Your task to perform on an android device: create a new album in the google photos Image 0: 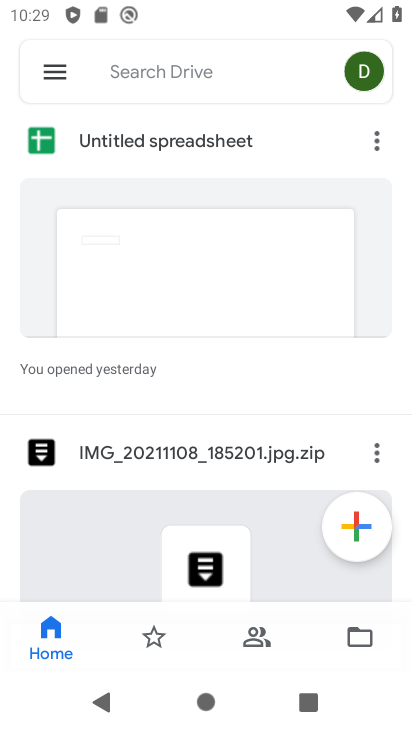
Step 0: click (75, 392)
Your task to perform on an android device: create a new album in the google photos Image 1: 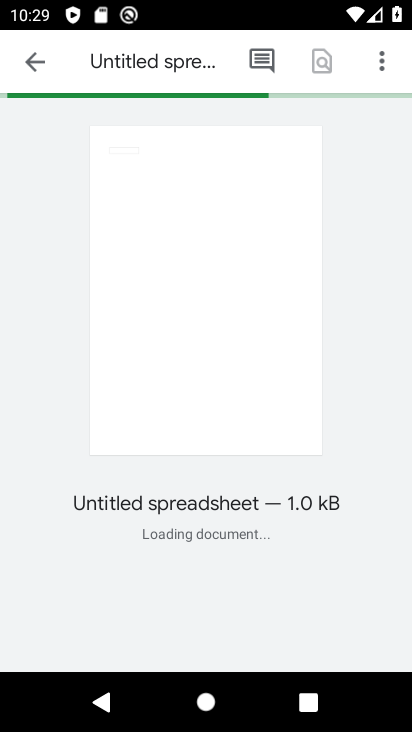
Step 1: press home button
Your task to perform on an android device: create a new album in the google photos Image 2: 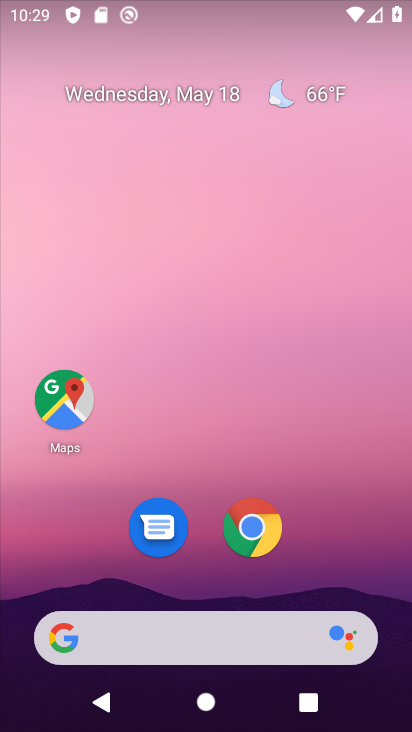
Step 2: drag from (370, 584) to (342, 204)
Your task to perform on an android device: create a new album in the google photos Image 3: 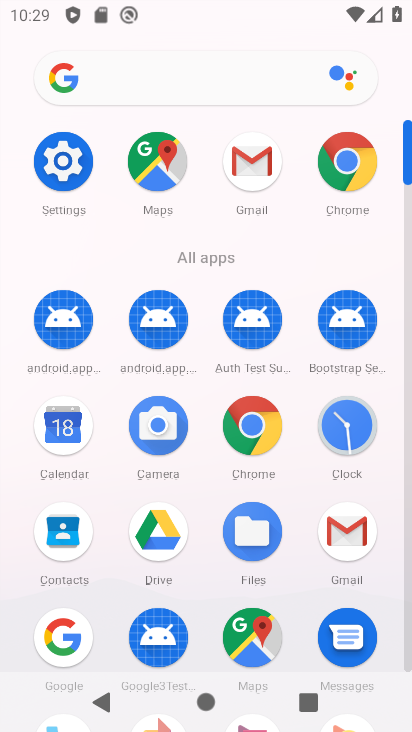
Step 3: click (411, 661)
Your task to perform on an android device: create a new album in the google photos Image 4: 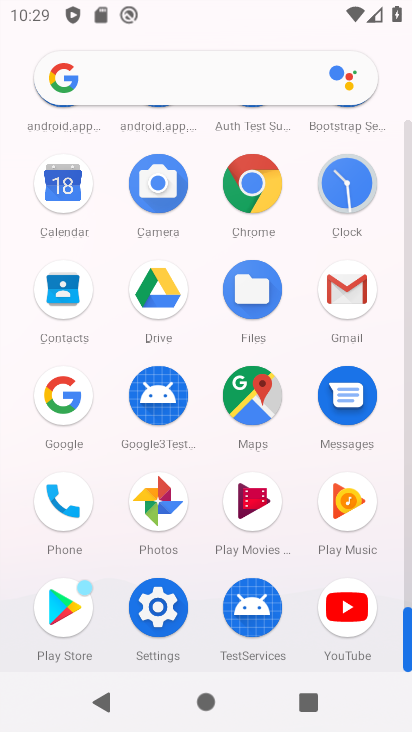
Step 4: click (173, 486)
Your task to perform on an android device: create a new album in the google photos Image 5: 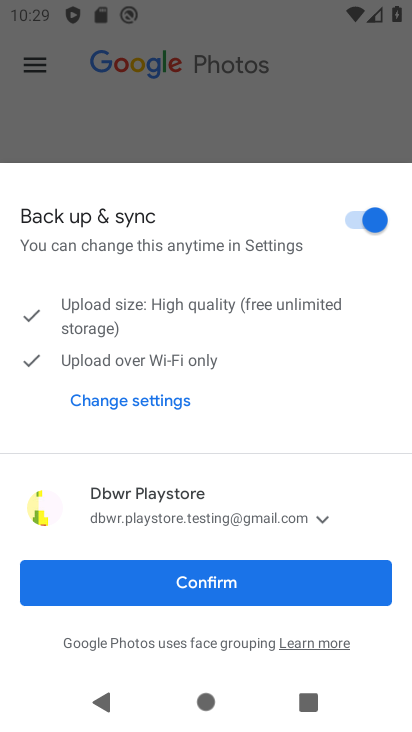
Step 5: click (226, 581)
Your task to perform on an android device: create a new album in the google photos Image 6: 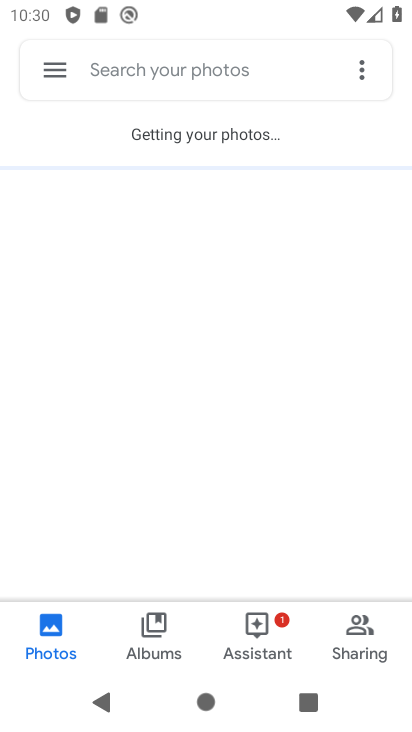
Step 6: click (255, 623)
Your task to perform on an android device: create a new album in the google photos Image 7: 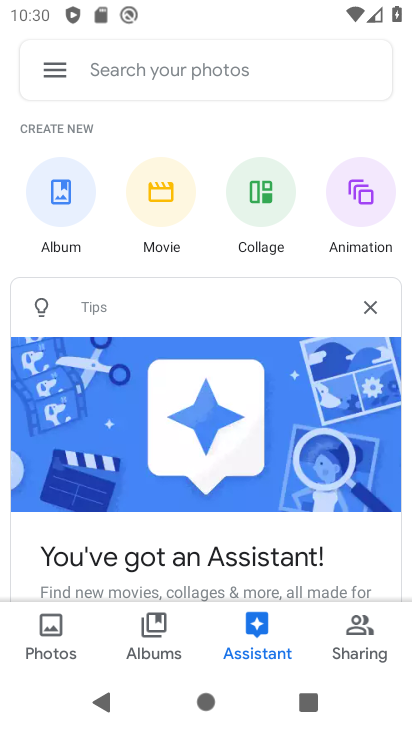
Step 7: click (53, 206)
Your task to perform on an android device: create a new album in the google photos Image 8: 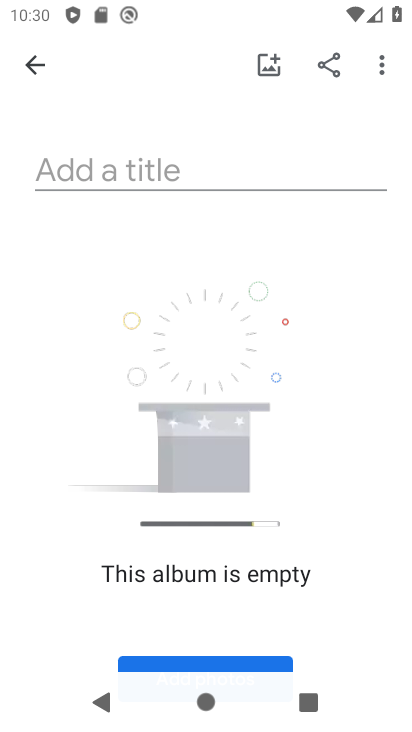
Step 8: click (153, 164)
Your task to perform on an android device: create a new album in the google photos Image 9: 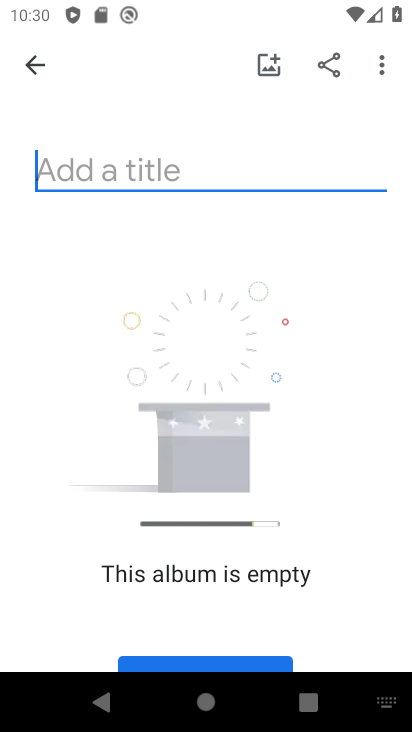
Step 9: type "njnskjnksj"
Your task to perform on an android device: create a new album in the google photos Image 10: 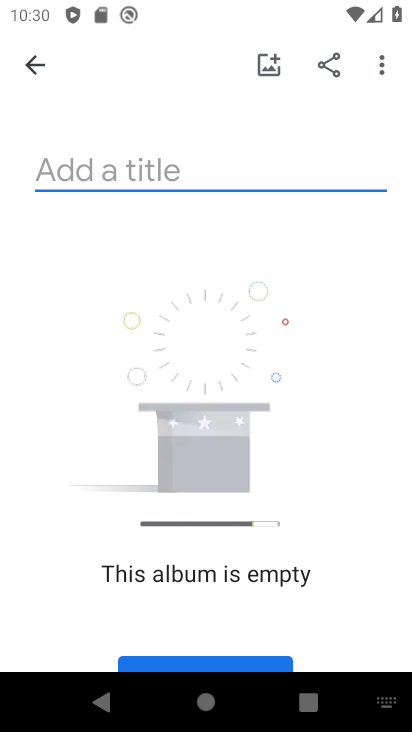
Step 10: click (403, 519)
Your task to perform on an android device: create a new album in the google photos Image 11: 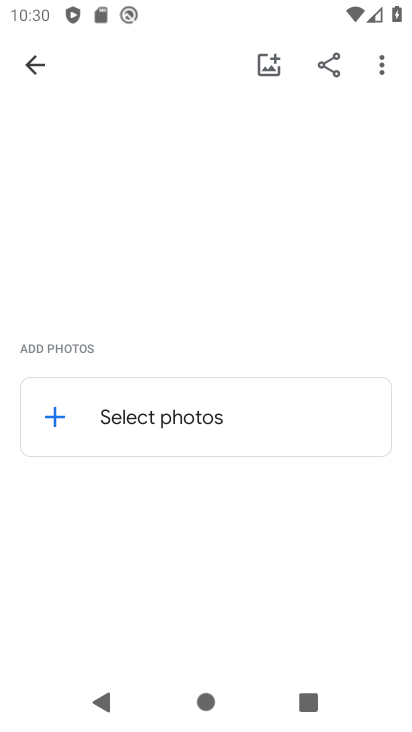
Step 11: click (269, 658)
Your task to perform on an android device: create a new album in the google photos Image 12: 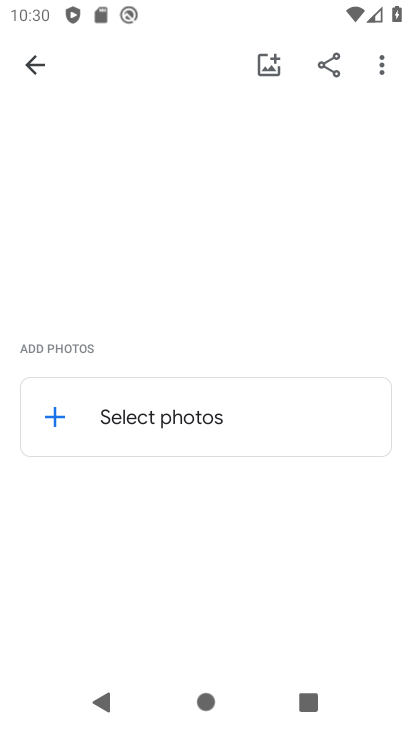
Step 12: click (292, 403)
Your task to perform on an android device: create a new album in the google photos Image 13: 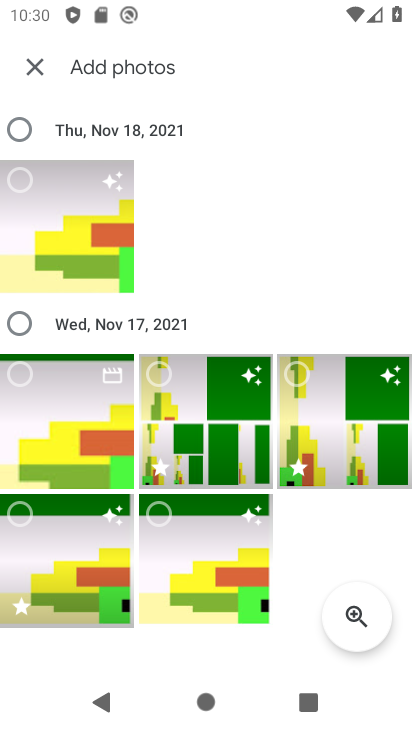
Step 13: click (181, 425)
Your task to perform on an android device: create a new album in the google photos Image 14: 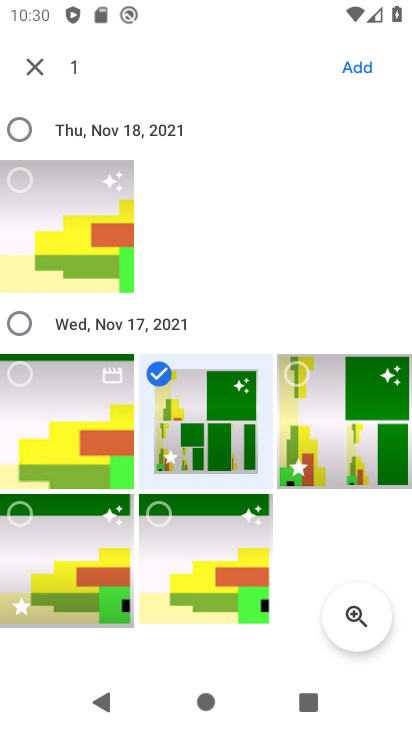
Step 14: click (369, 66)
Your task to perform on an android device: create a new album in the google photos Image 15: 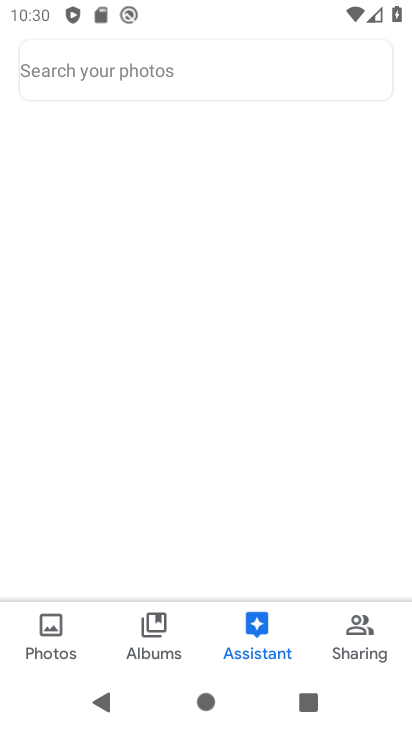
Step 15: task complete